Your task to perform on an android device: Go to internet settings Image 0: 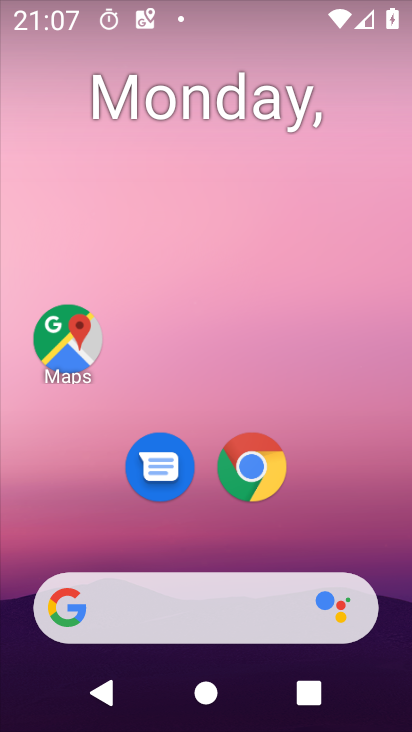
Step 0: drag from (200, 503) to (268, 48)
Your task to perform on an android device: Go to internet settings Image 1: 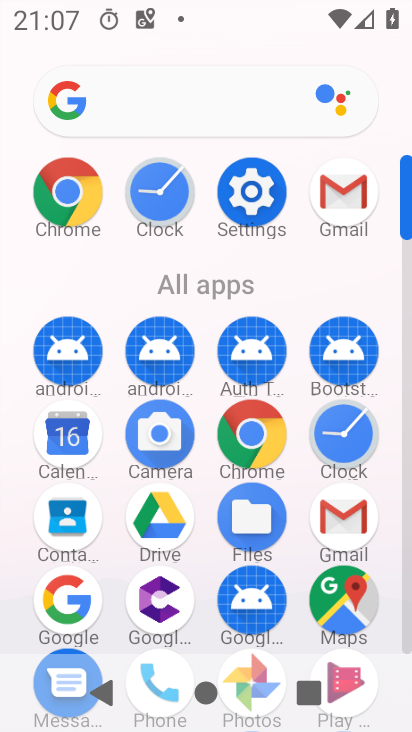
Step 1: click (247, 189)
Your task to perform on an android device: Go to internet settings Image 2: 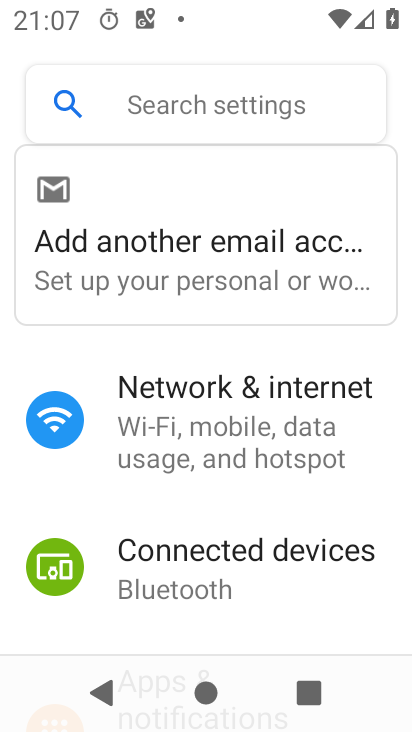
Step 2: click (229, 410)
Your task to perform on an android device: Go to internet settings Image 3: 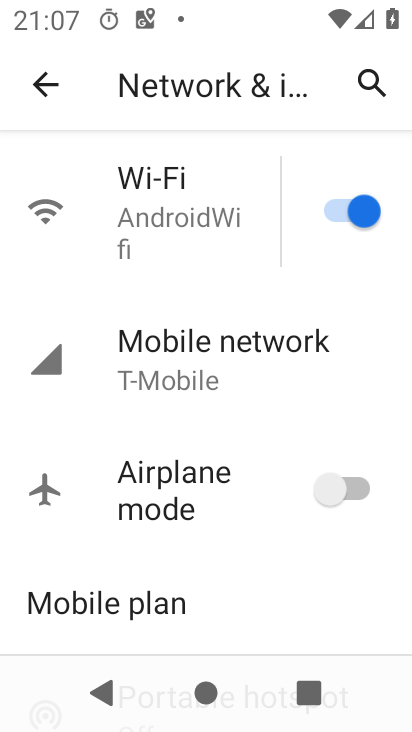
Step 3: task complete